Your task to perform on an android device: Look up the best rated coffee maker on Lowe's. Image 0: 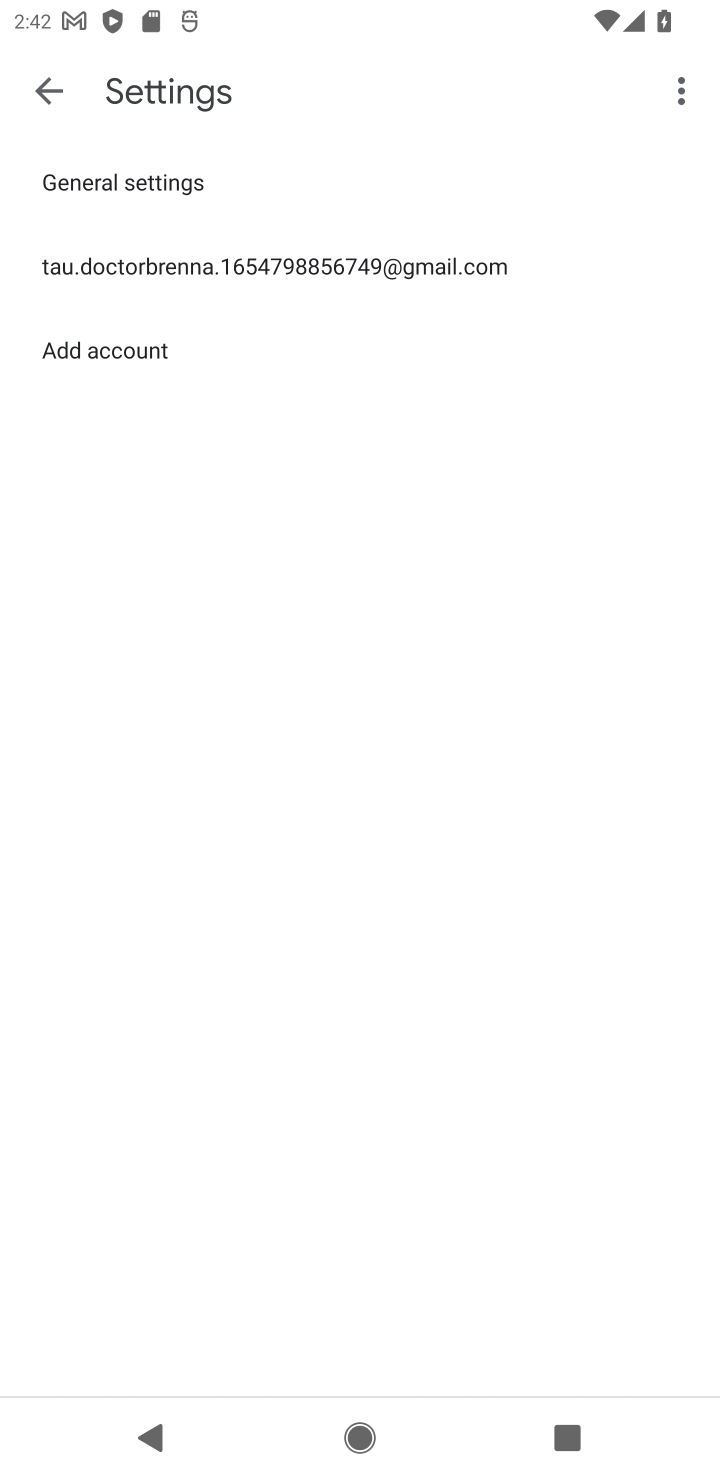
Step 0: press home button
Your task to perform on an android device: Look up the best rated coffee maker on Lowe's. Image 1: 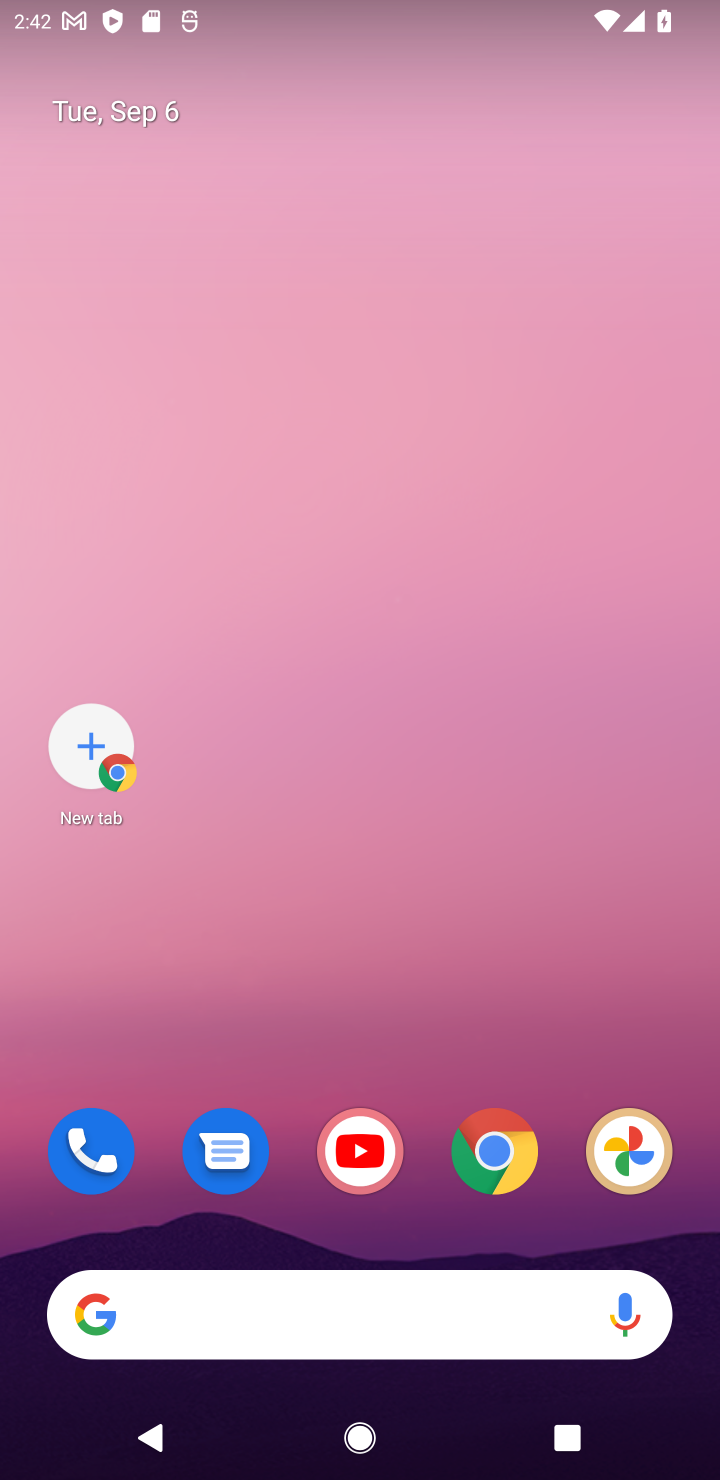
Step 1: click (485, 1158)
Your task to perform on an android device: Look up the best rated coffee maker on Lowe's. Image 2: 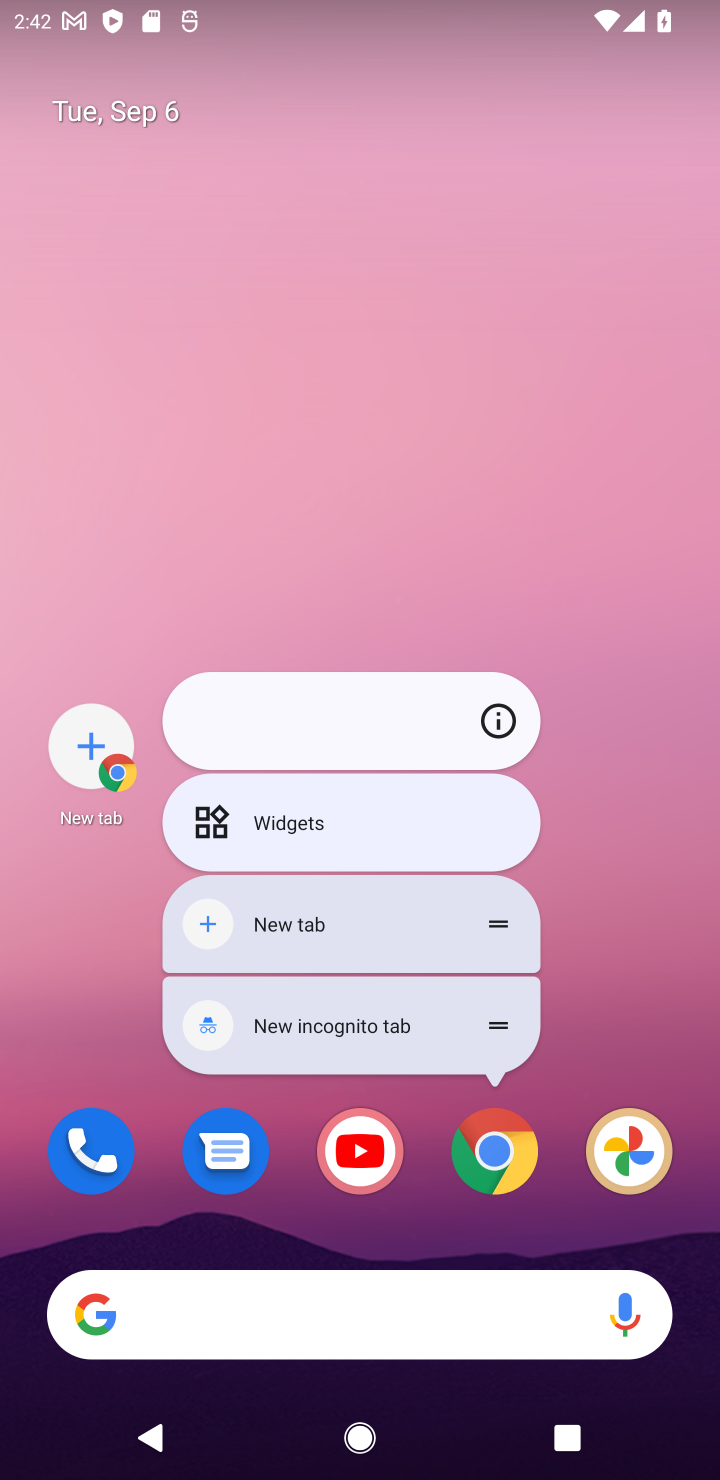
Step 2: click (485, 1153)
Your task to perform on an android device: Look up the best rated coffee maker on Lowe's. Image 3: 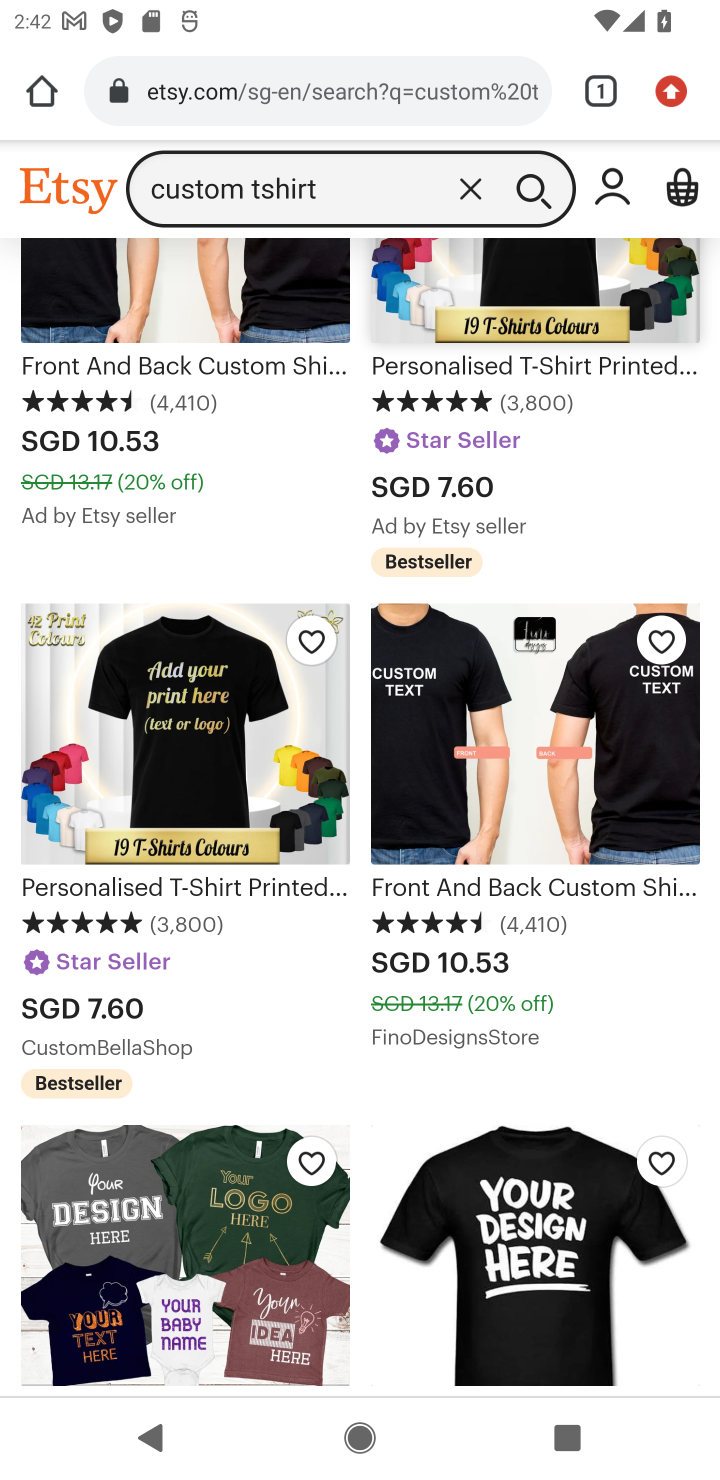
Step 3: click (359, 96)
Your task to perform on an android device: Look up the best rated coffee maker on Lowe's. Image 4: 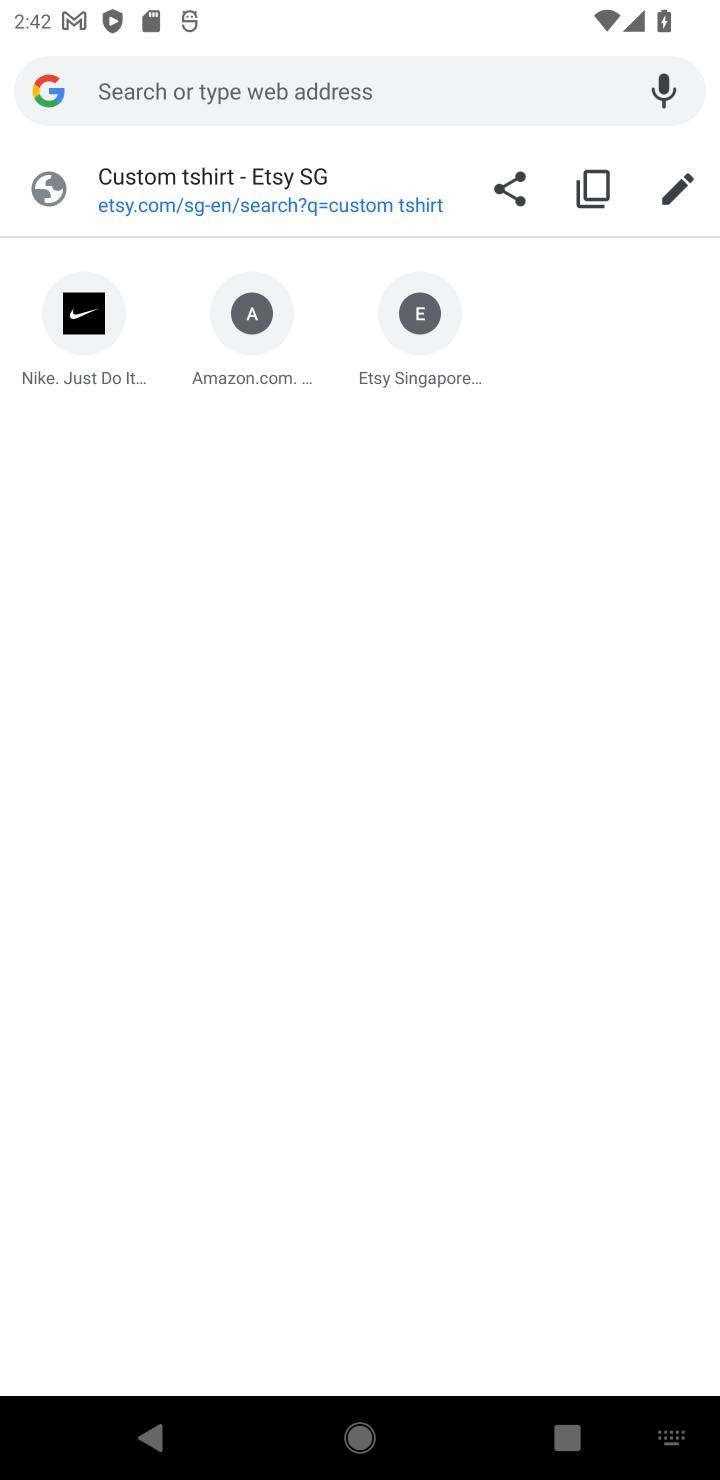
Step 4: type "lowes"
Your task to perform on an android device: Look up the best rated coffee maker on Lowe's. Image 5: 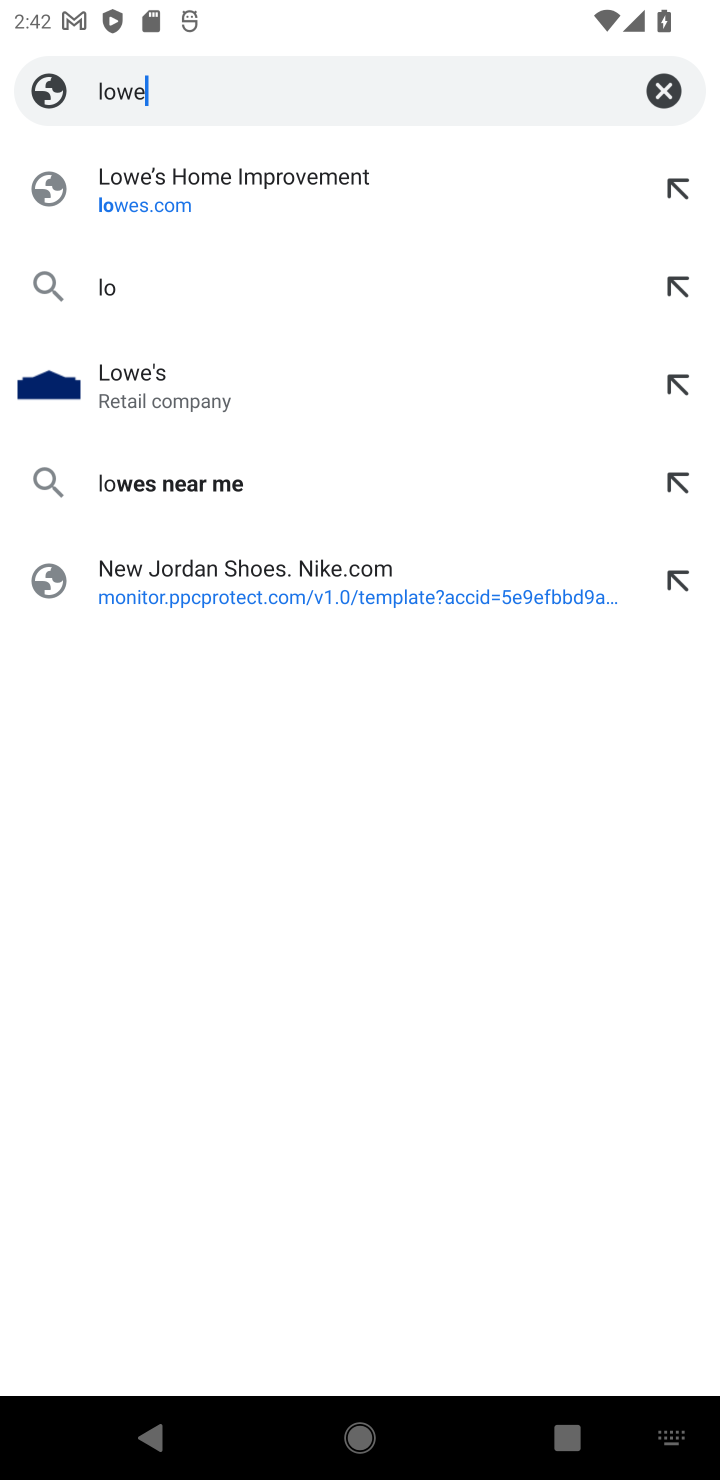
Step 5: type ""
Your task to perform on an android device: Look up the best rated coffee maker on Lowe's. Image 6: 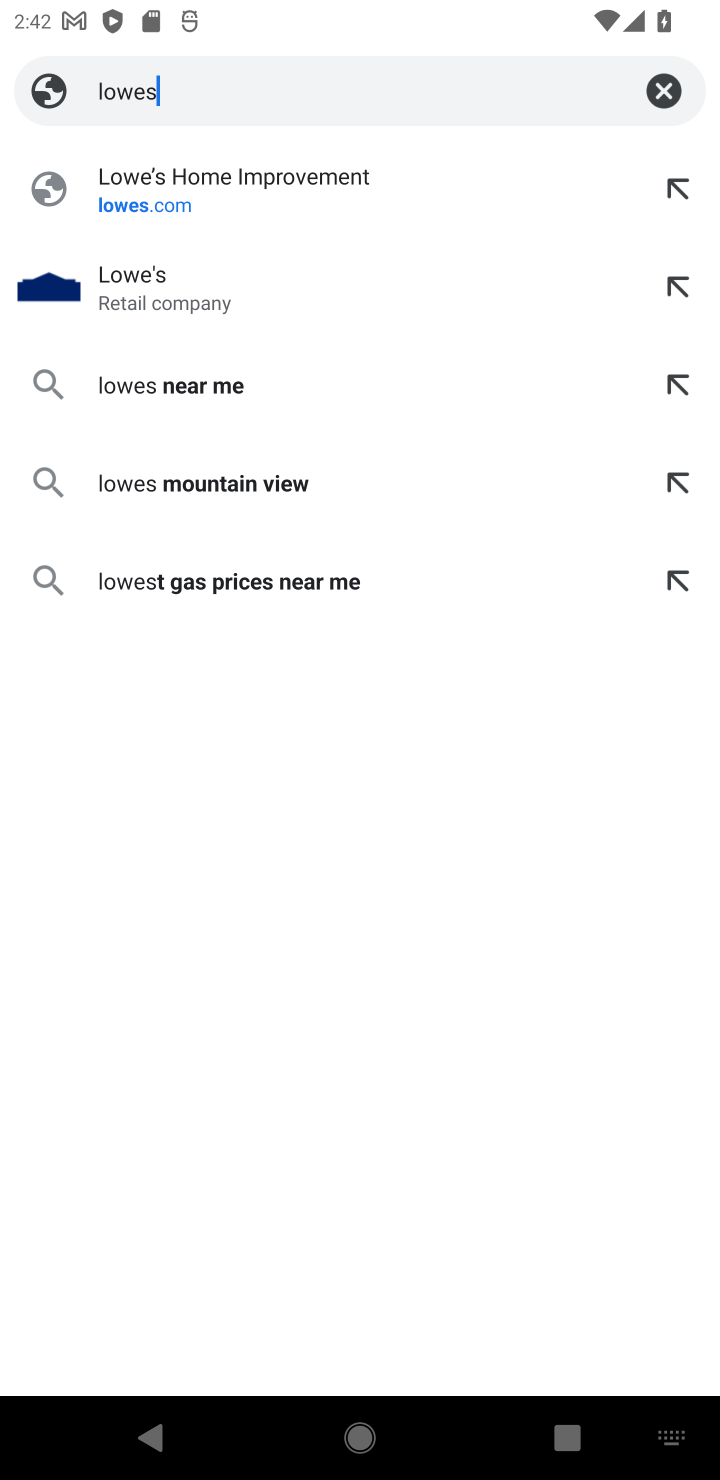
Step 6: click (136, 303)
Your task to perform on an android device: Look up the best rated coffee maker on Lowe's. Image 7: 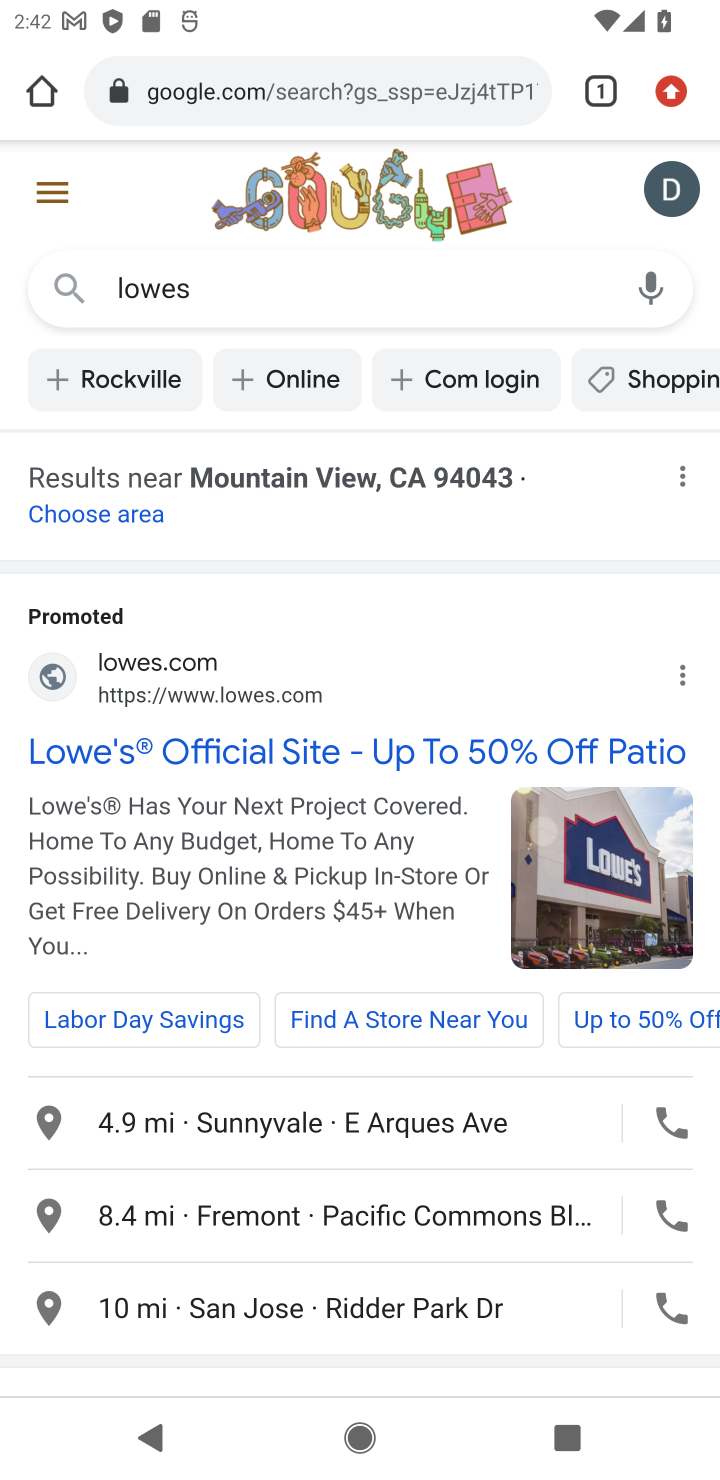
Step 7: drag from (282, 759) to (300, 316)
Your task to perform on an android device: Look up the best rated coffee maker on Lowe's. Image 8: 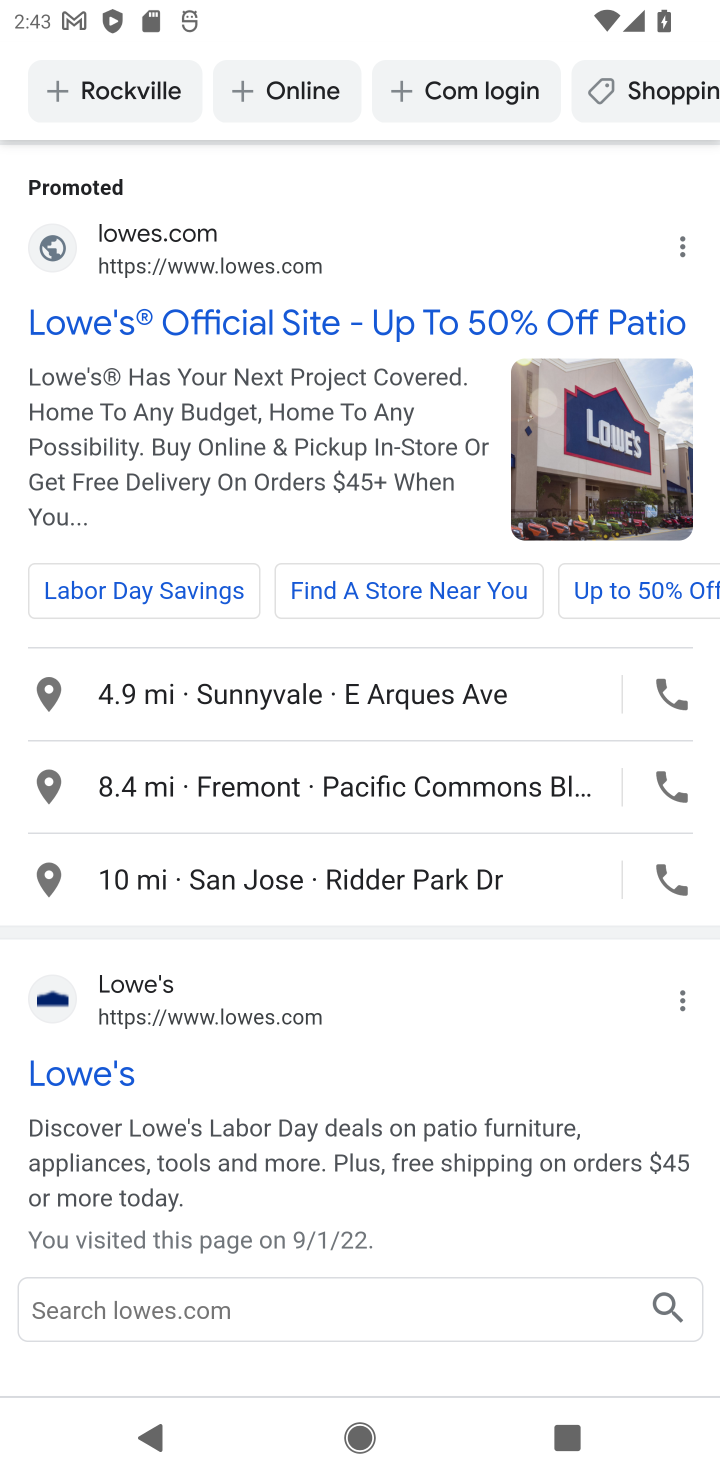
Step 8: click (76, 1070)
Your task to perform on an android device: Look up the best rated coffee maker on Lowe's. Image 9: 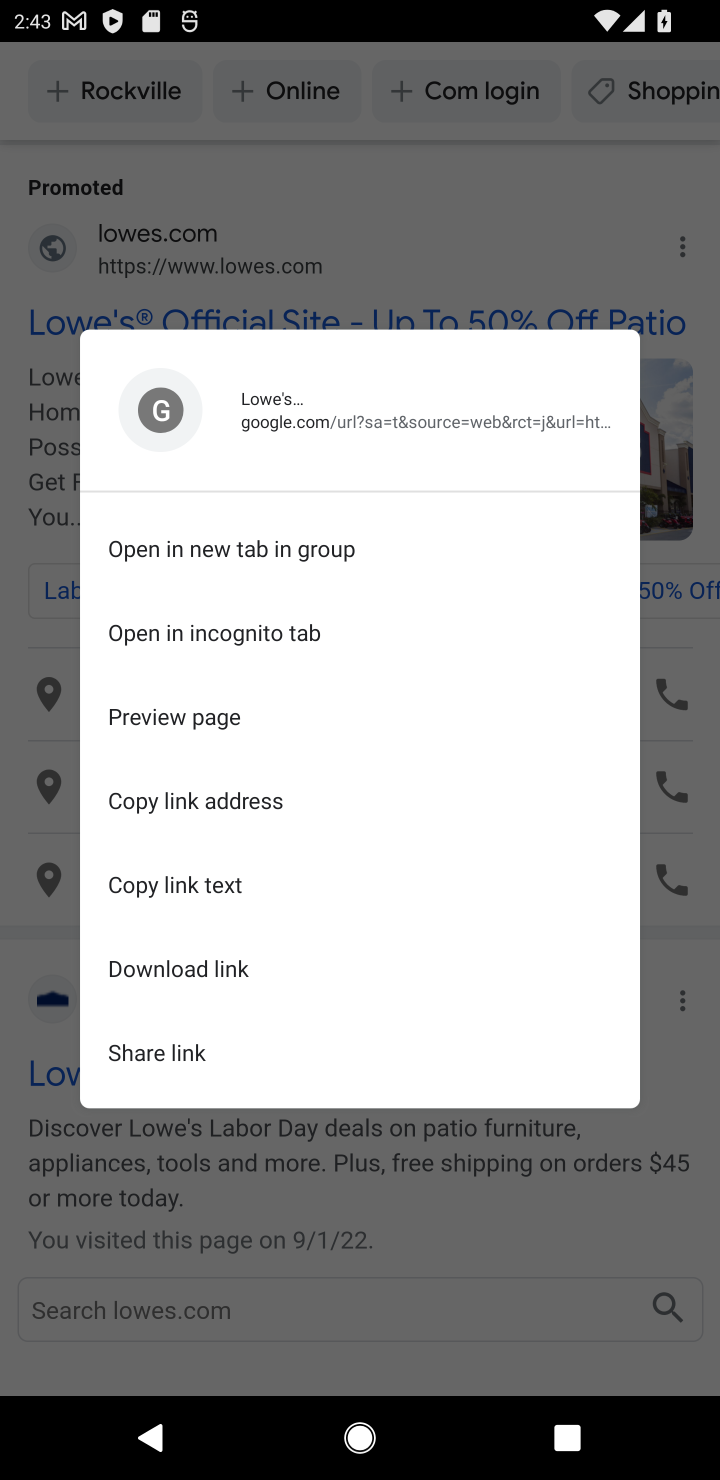
Step 9: click (704, 1098)
Your task to perform on an android device: Look up the best rated coffee maker on Lowe's. Image 10: 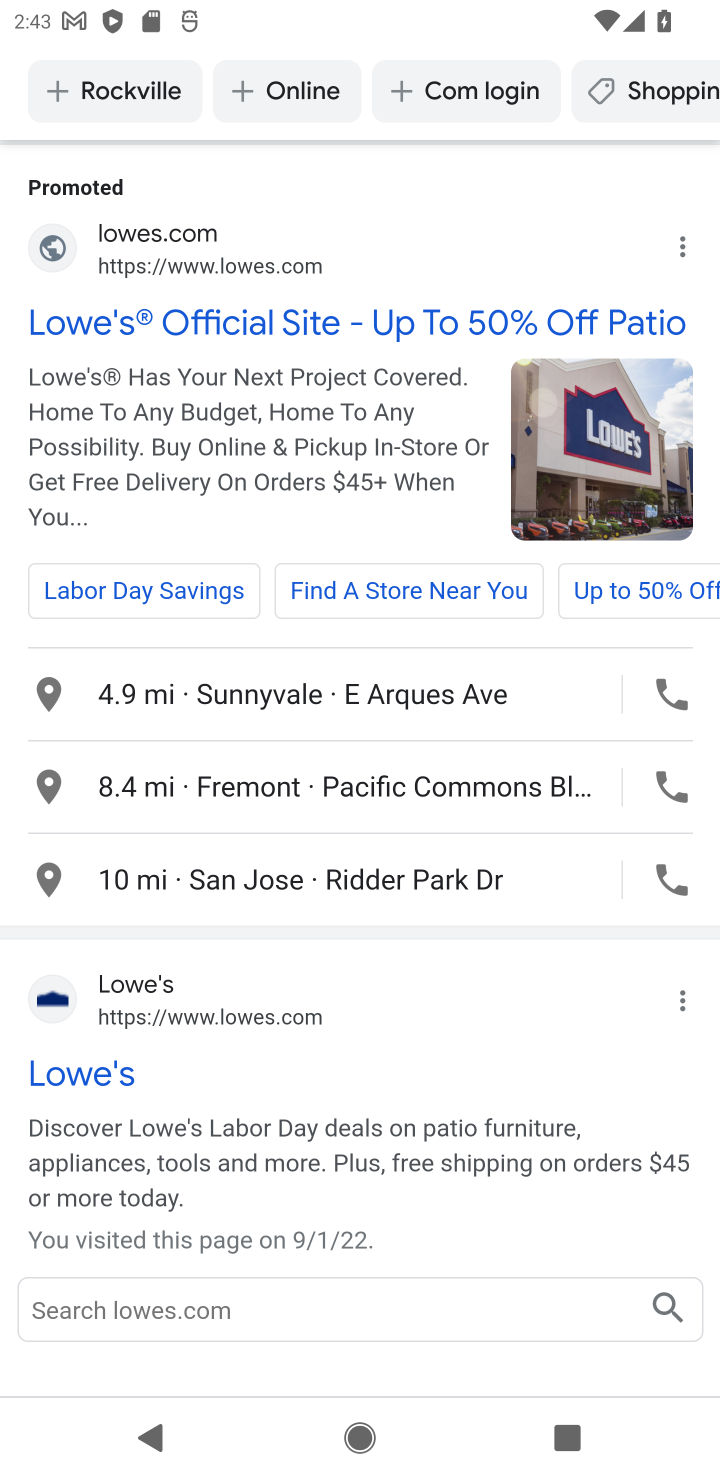
Step 10: click (85, 1083)
Your task to perform on an android device: Look up the best rated coffee maker on Lowe's. Image 11: 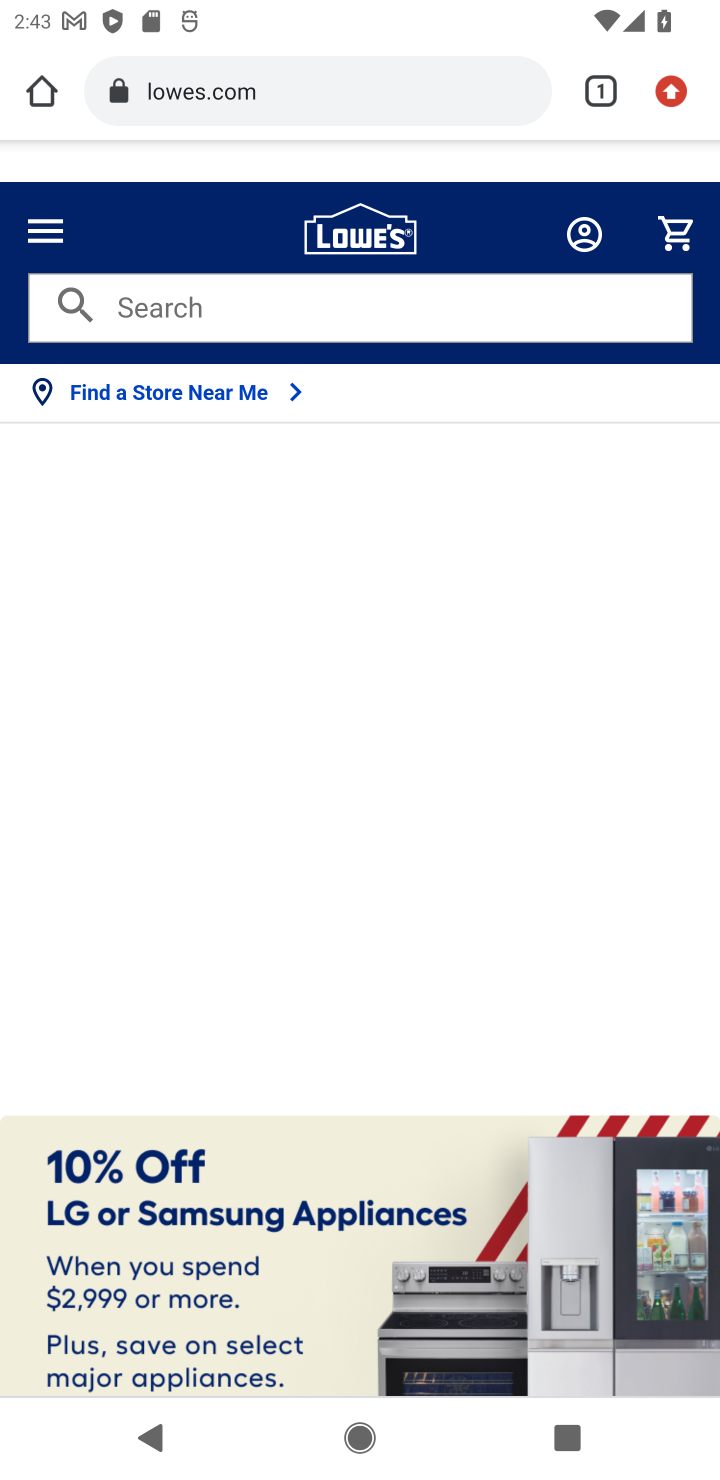
Step 11: click (319, 314)
Your task to perform on an android device: Look up the best rated coffee maker on Lowe's. Image 12: 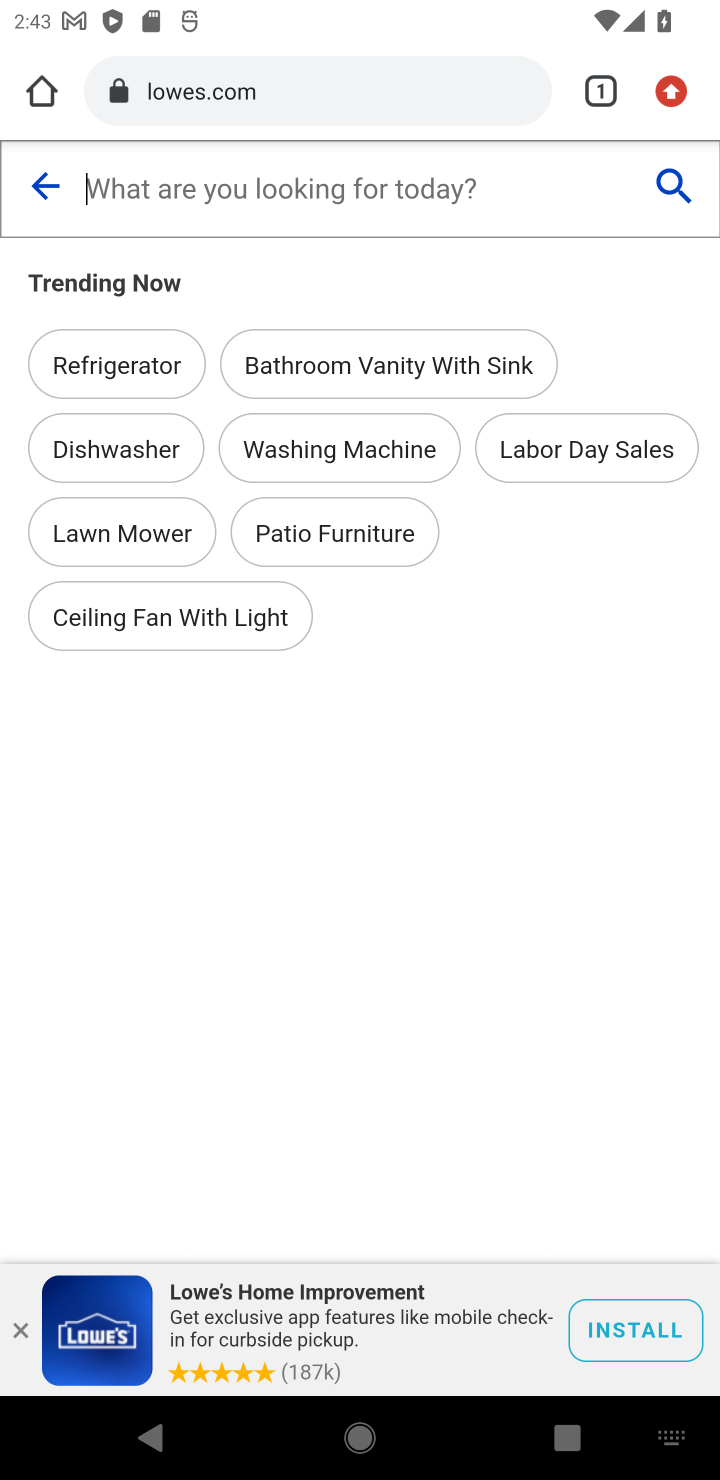
Step 12: type "coffee maker"
Your task to perform on an android device: Look up the best rated coffee maker on Lowe's. Image 13: 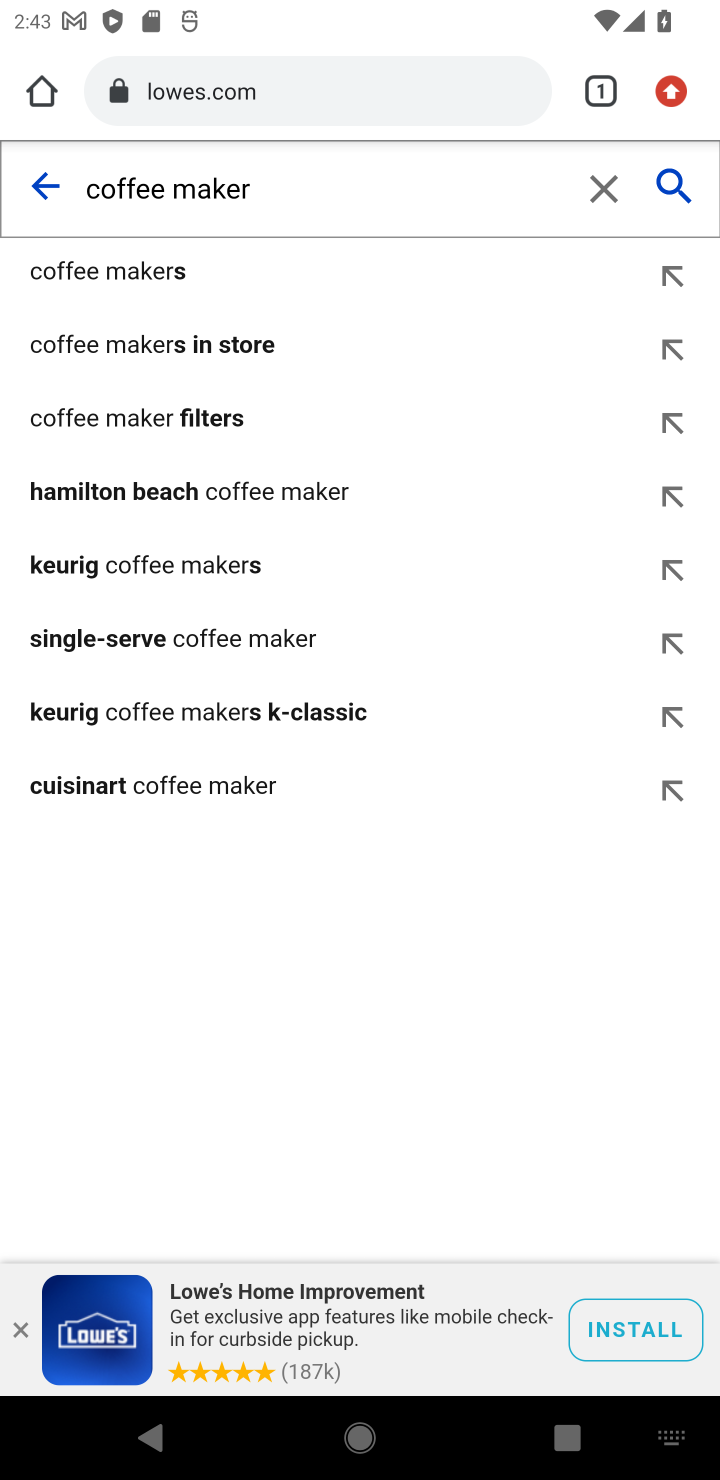
Step 13: click (144, 258)
Your task to perform on an android device: Look up the best rated coffee maker on Lowe's. Image 14: 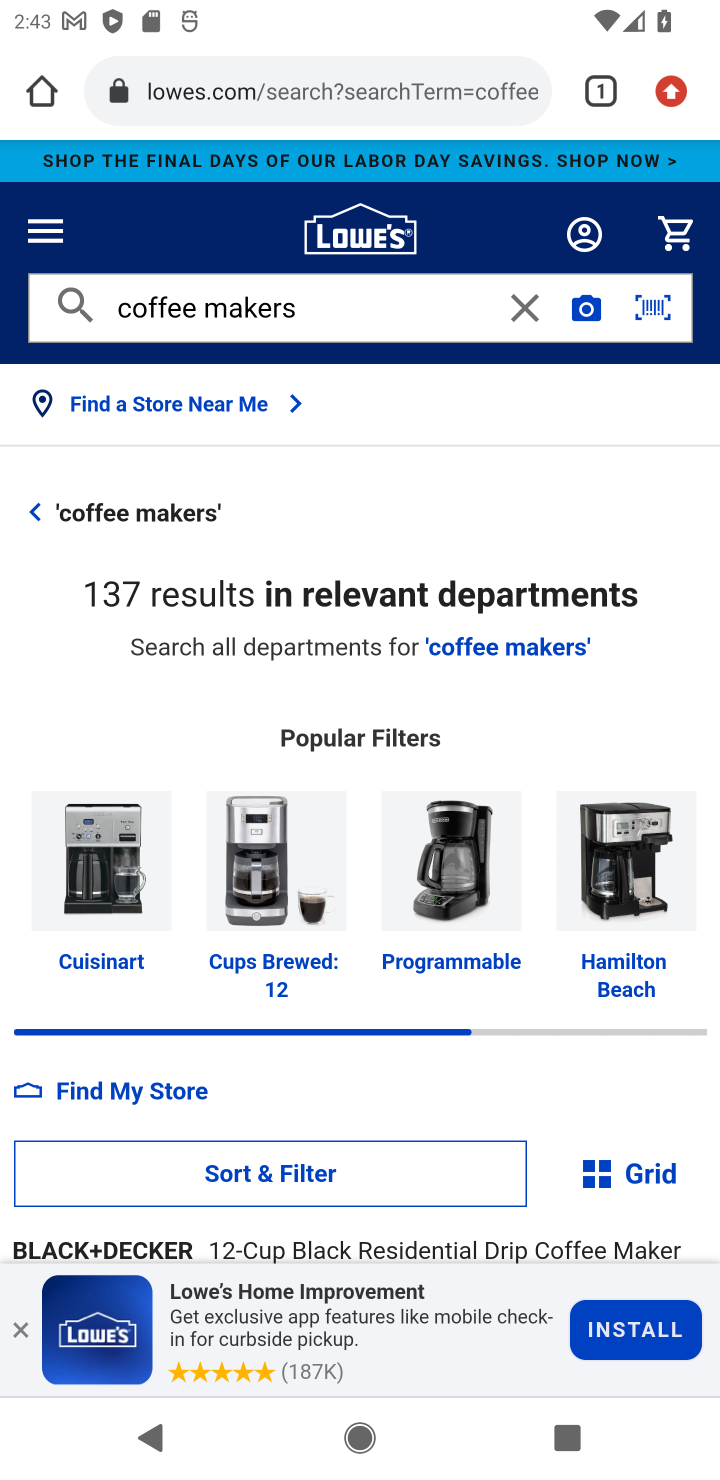
Step 14: drag from (448, 1083) to (499, 477)
Your task to perform on an android device: Look up the best rated coffee maker on Lowe's. Image 15: 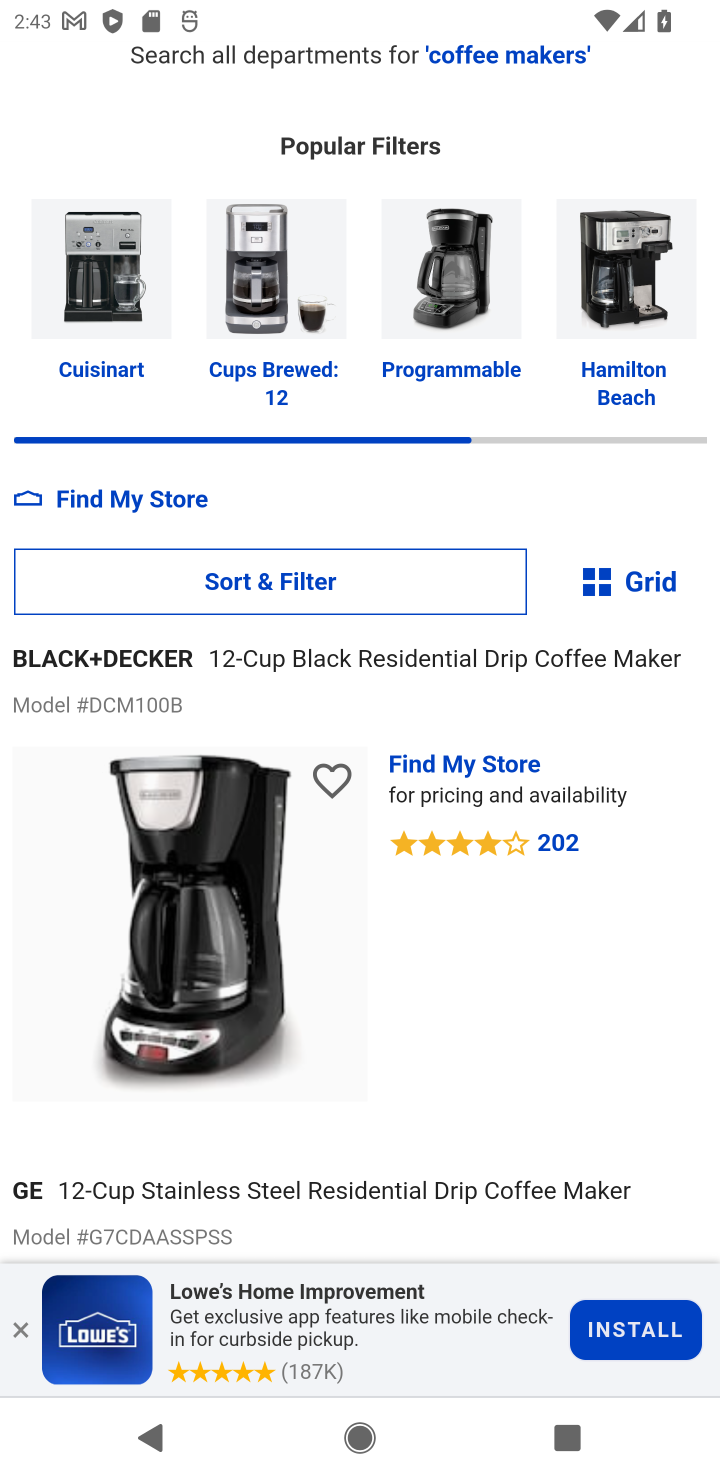
Step 15: click (299, 577)
Your task to perform on an android device: Look up the best rated coffee maker on Lowe's. Image 16: 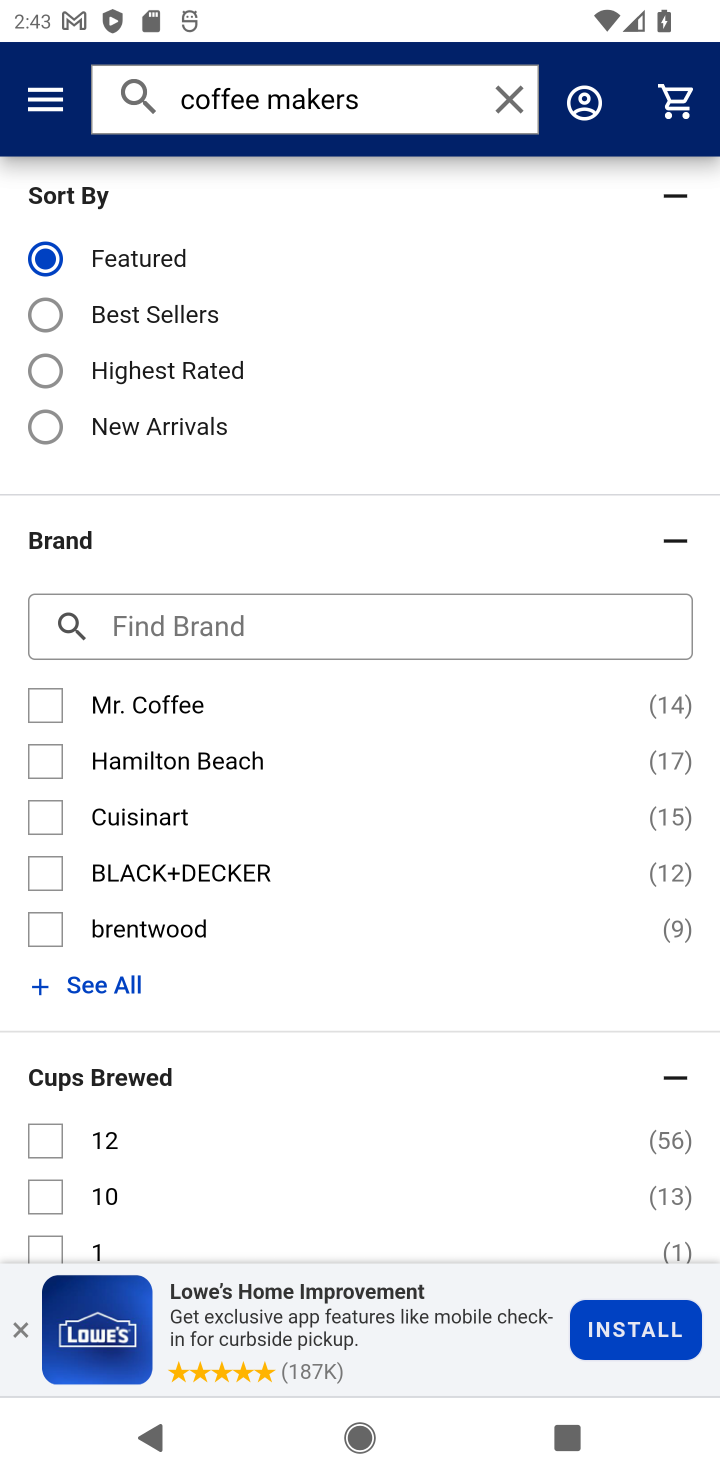
Step 16: click (46, 373)
Your task to perform on an android device: Look up the best rated coffee maker on Lowe's. Image 17: 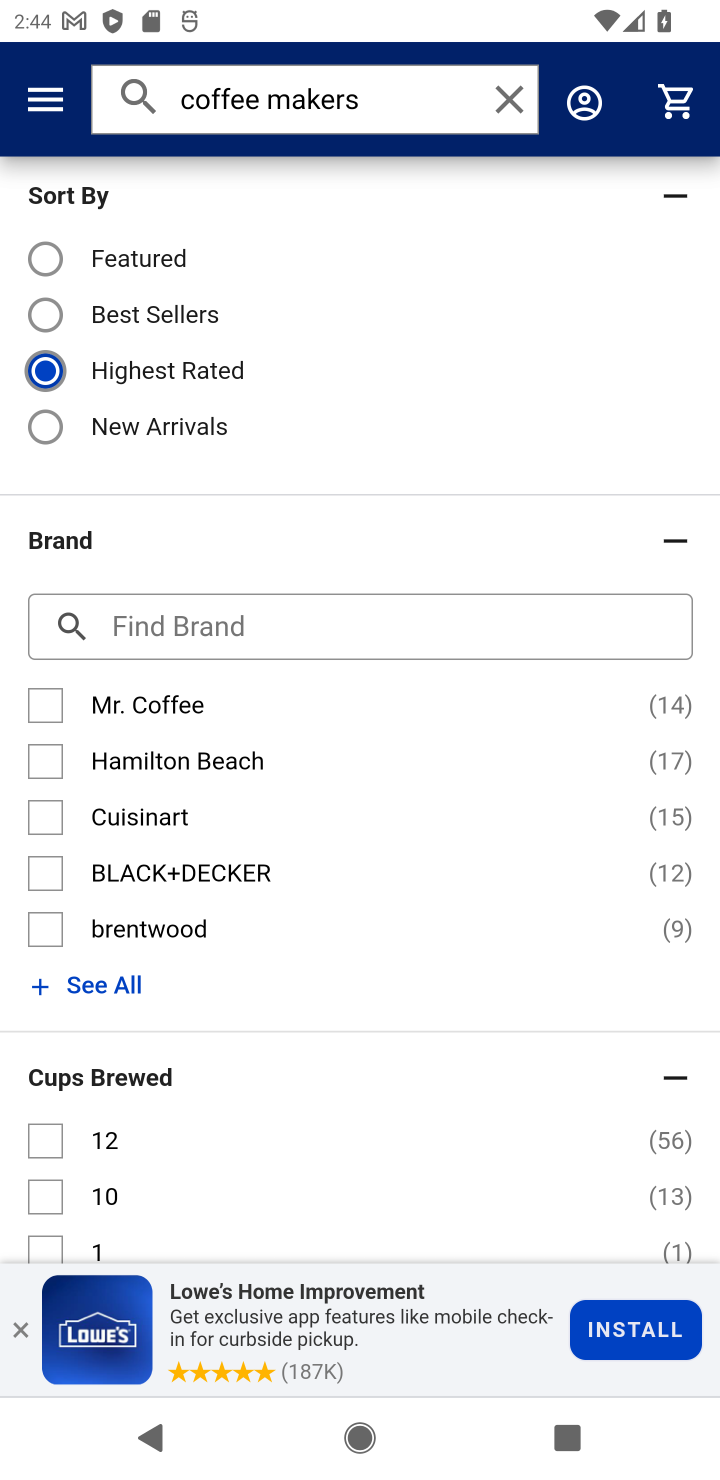
Step 17: click (48, 312)
Your task to perform on an android device: Look up the best rated coffee maker on Lowe's. Image 18: 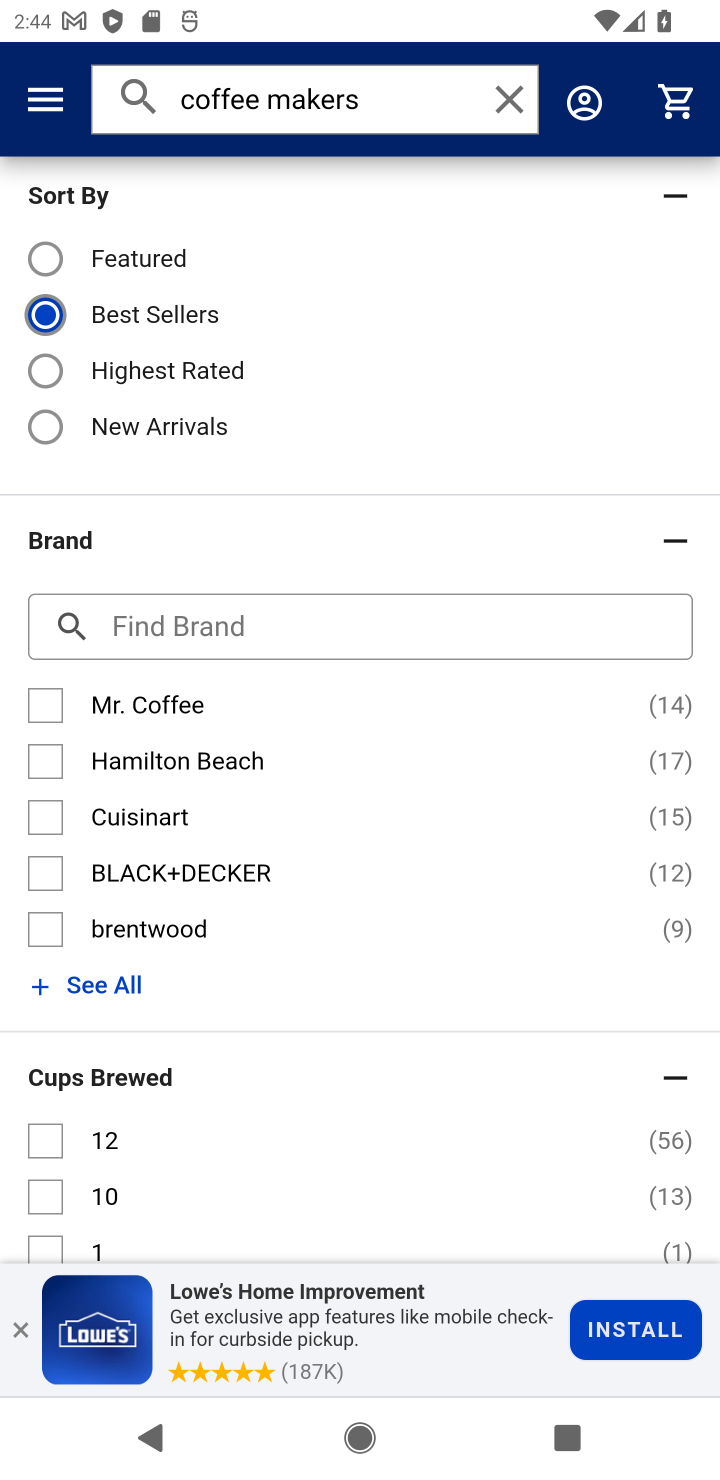
Step 18: click (20, 1331)
Your task to perform on an android device: Look up the best rated coffee maker on Lowe's. Image 19: 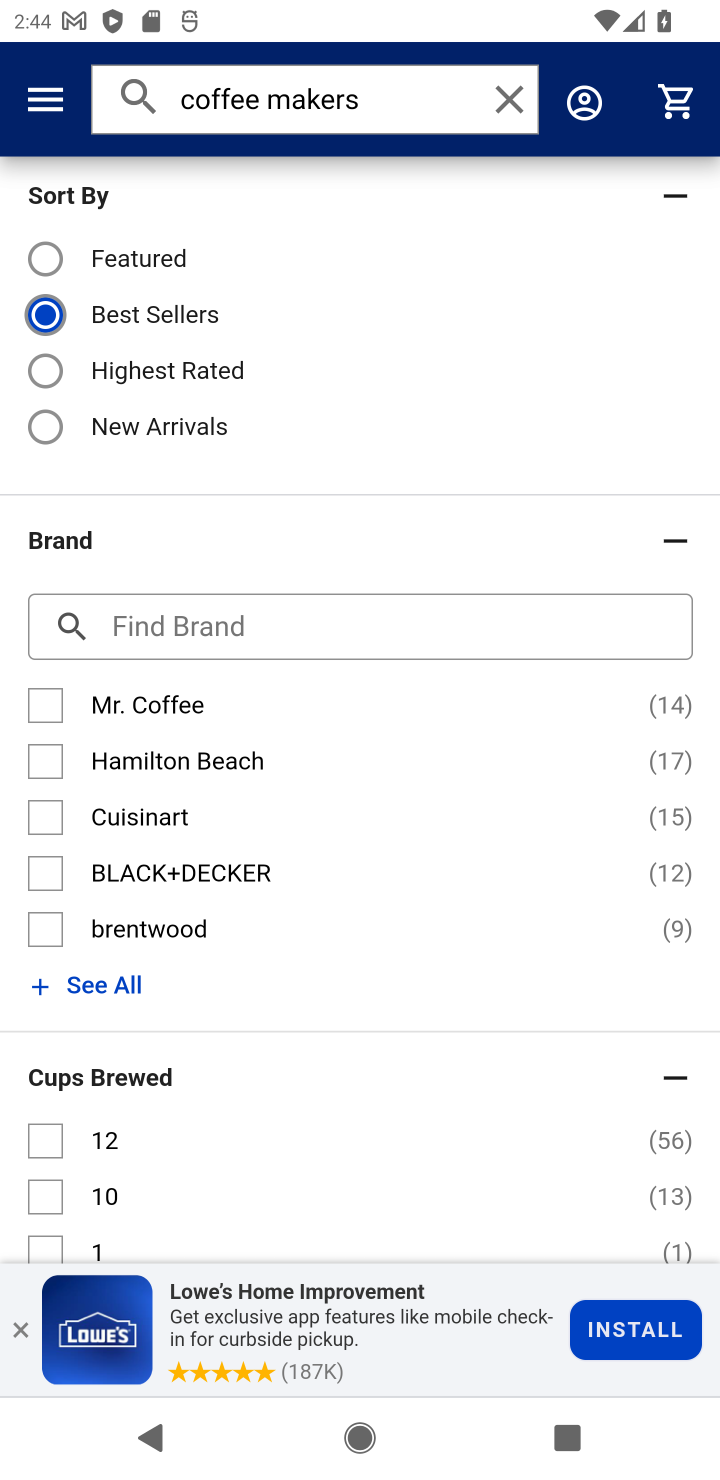
Step 19: click (21, 1326)
Your task to perform on an android device: Look up the best rated coffee maker on Lowe's. Image 20: 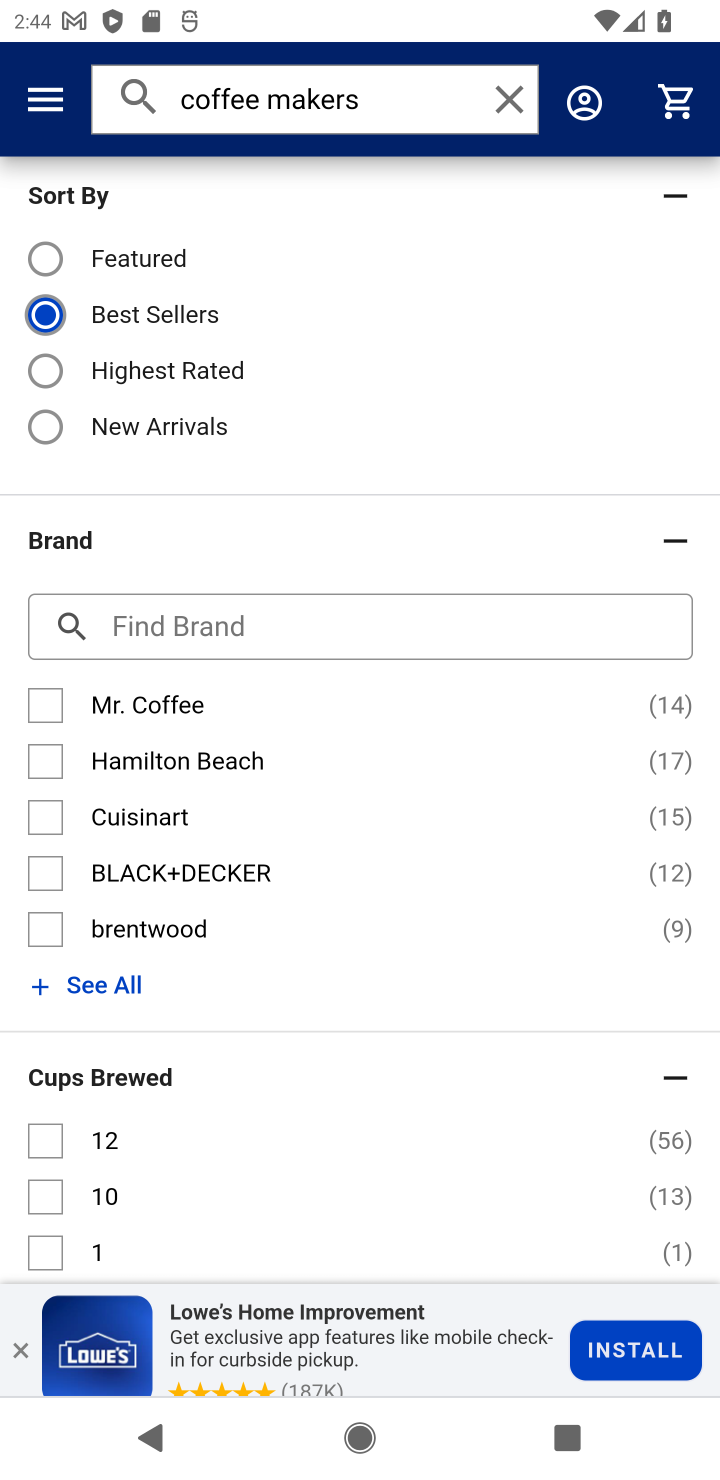
Step 20: click (17, 1328)
Your task to perform on an android device: Look up the best rated coffee maker on Lowe's. Image 21: 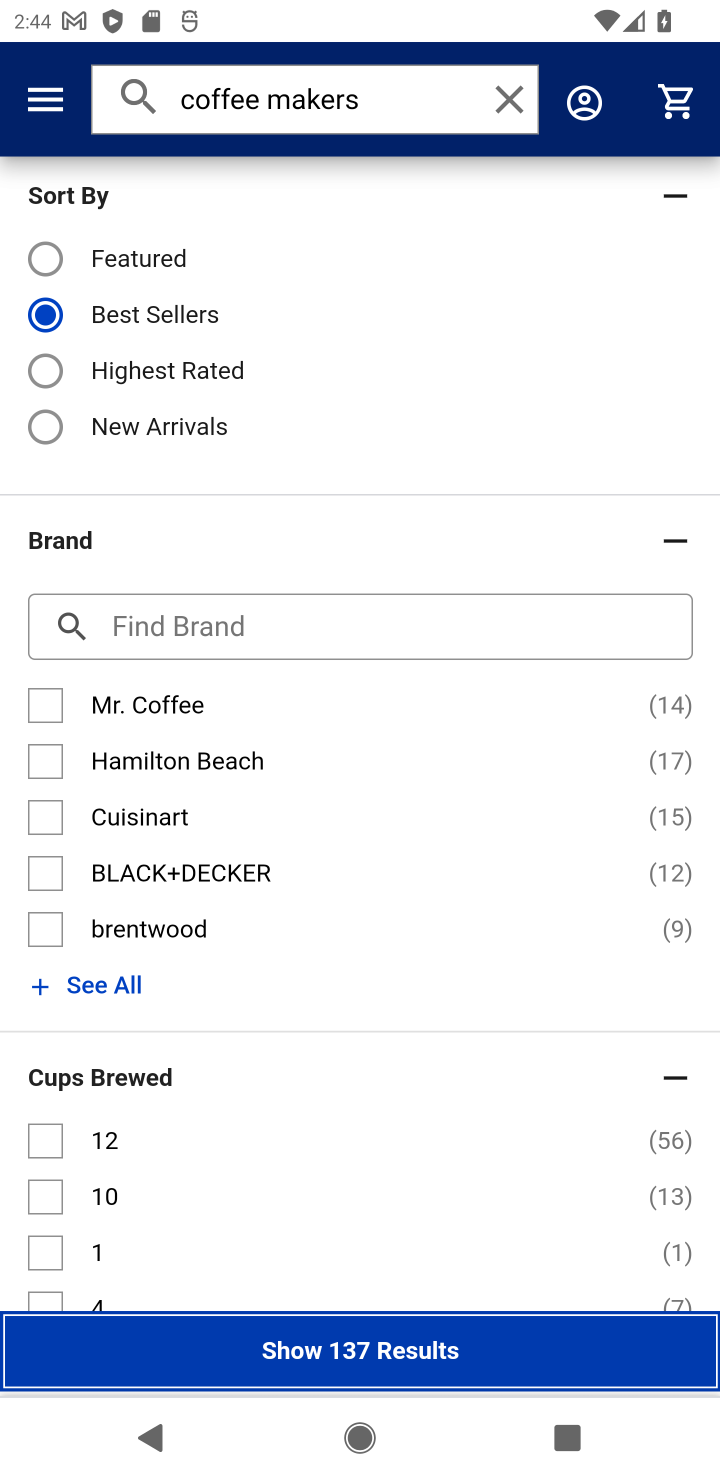
Step 21: click (52, 380)
Your task to perform on an android device: Look up the best rated coffee maker on Lowe's. Image 22: 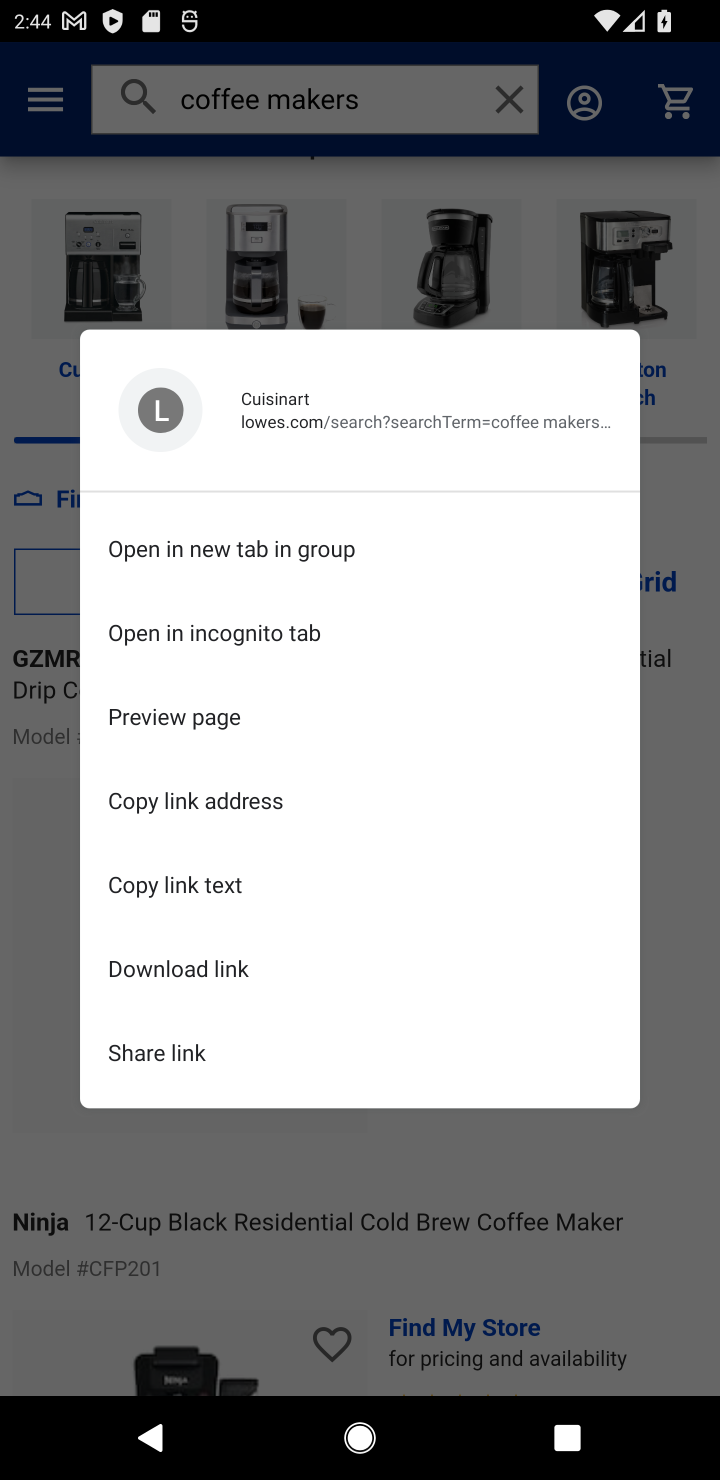
Step 22: click (670, 1022)
Your task to perform on an android device: Look up the best rated coffee maker on Lowe's. Image 23: 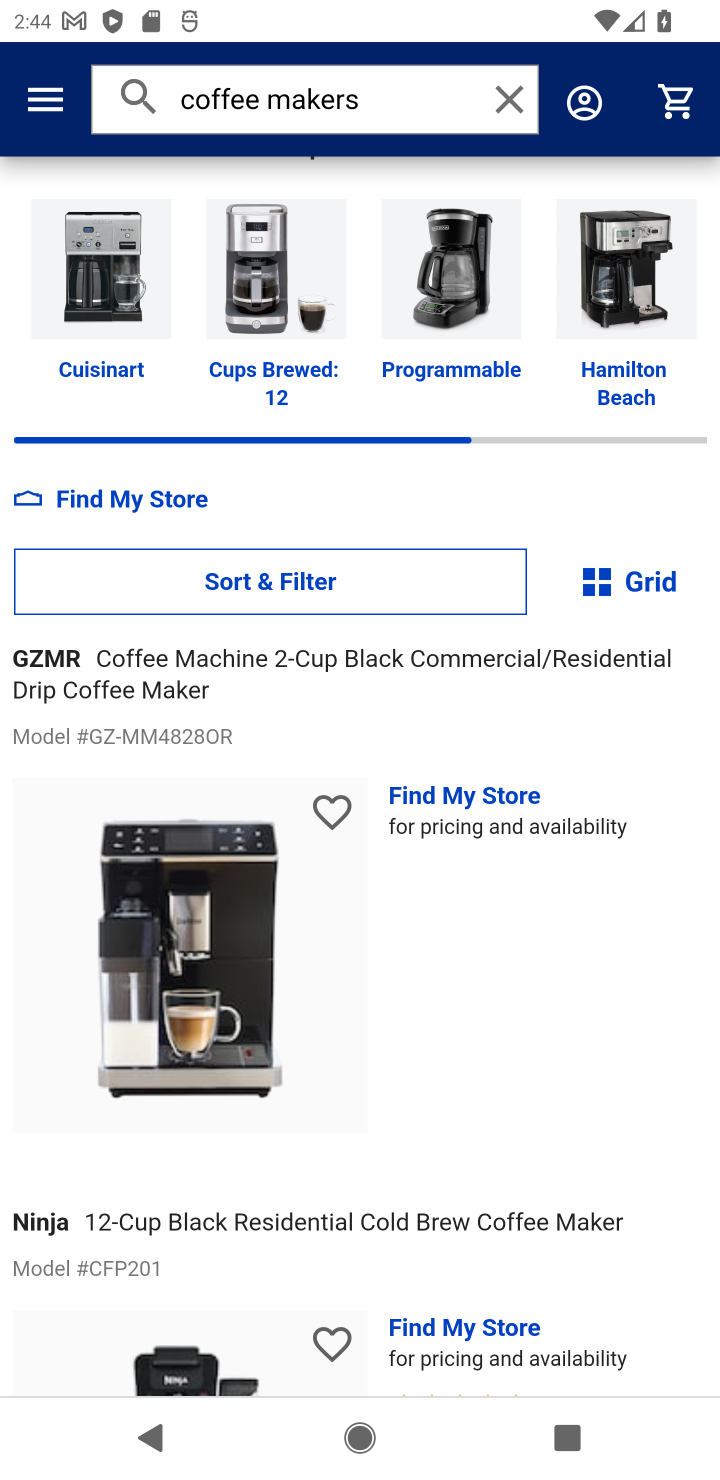
Step 23: task complete